Your task to perform on an android device: change notification settings in the gmail app Image 0: 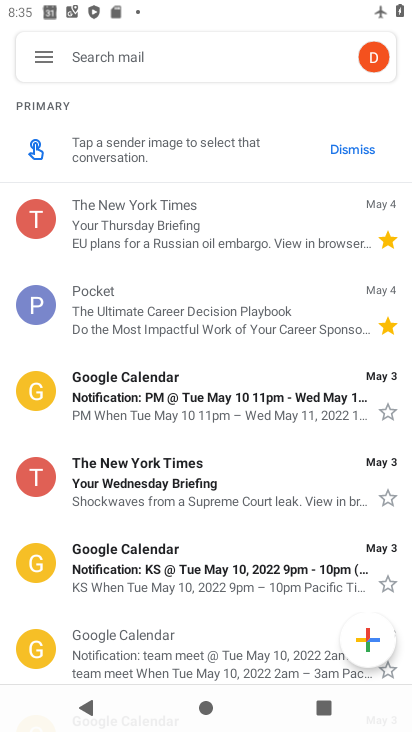
Step 0: click (45, 54)
Your task to perform on an android device: change notification settings in the gmail app Image 1: 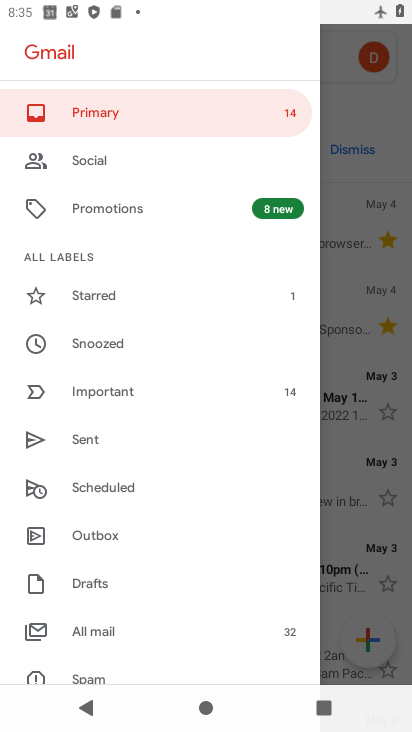
Step 1: drag from (157, 618) to (202, 190)
Your task to perform on an android device: change notification settings in the gmail app Image 2: 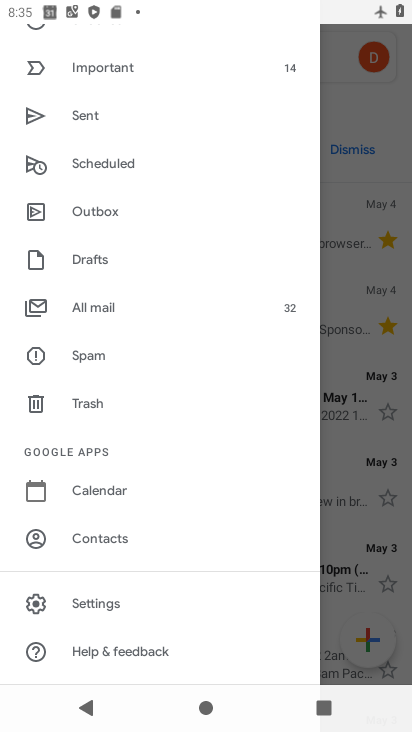
Step 2: click (119, 596)
Your task to perform on an android device: change notification settings in the gmail app Image 3: 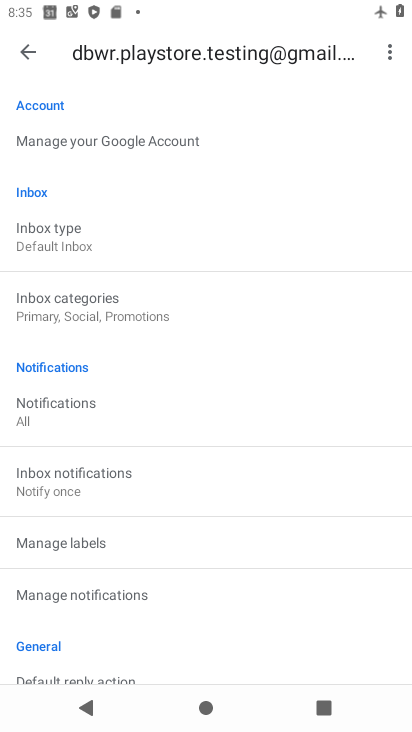
Step 3: click (129, 596)
Your task to perform on an android device: change notification settings in the gmail app Image 4: 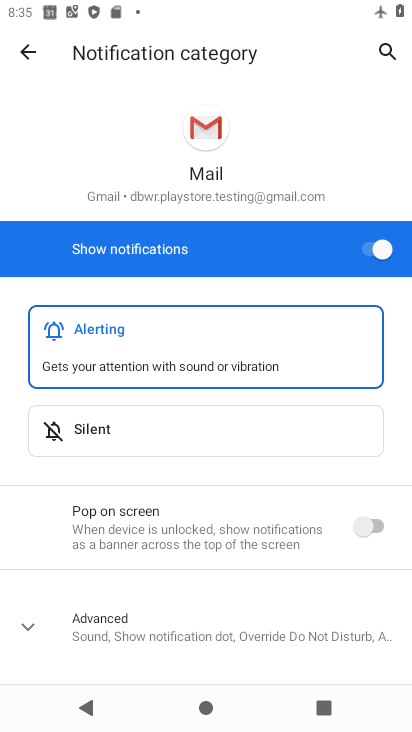
Step 4: click (371, 241)
Your task to perform on an android device: change notification settings in the gmail app Image 5: 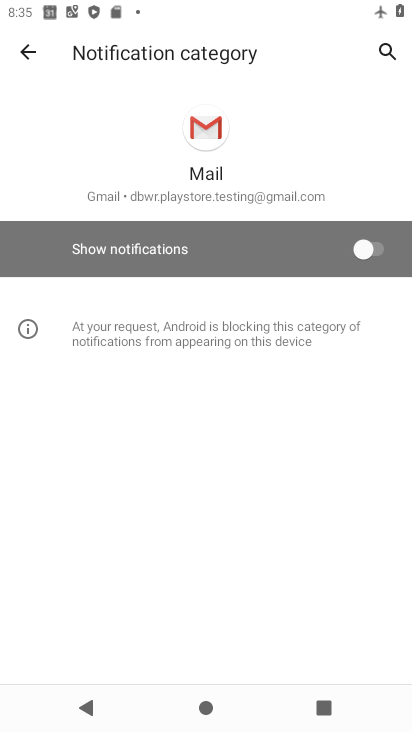
Step 5: task complete